Your task to perform on an android device: Open the contacts Image 0: 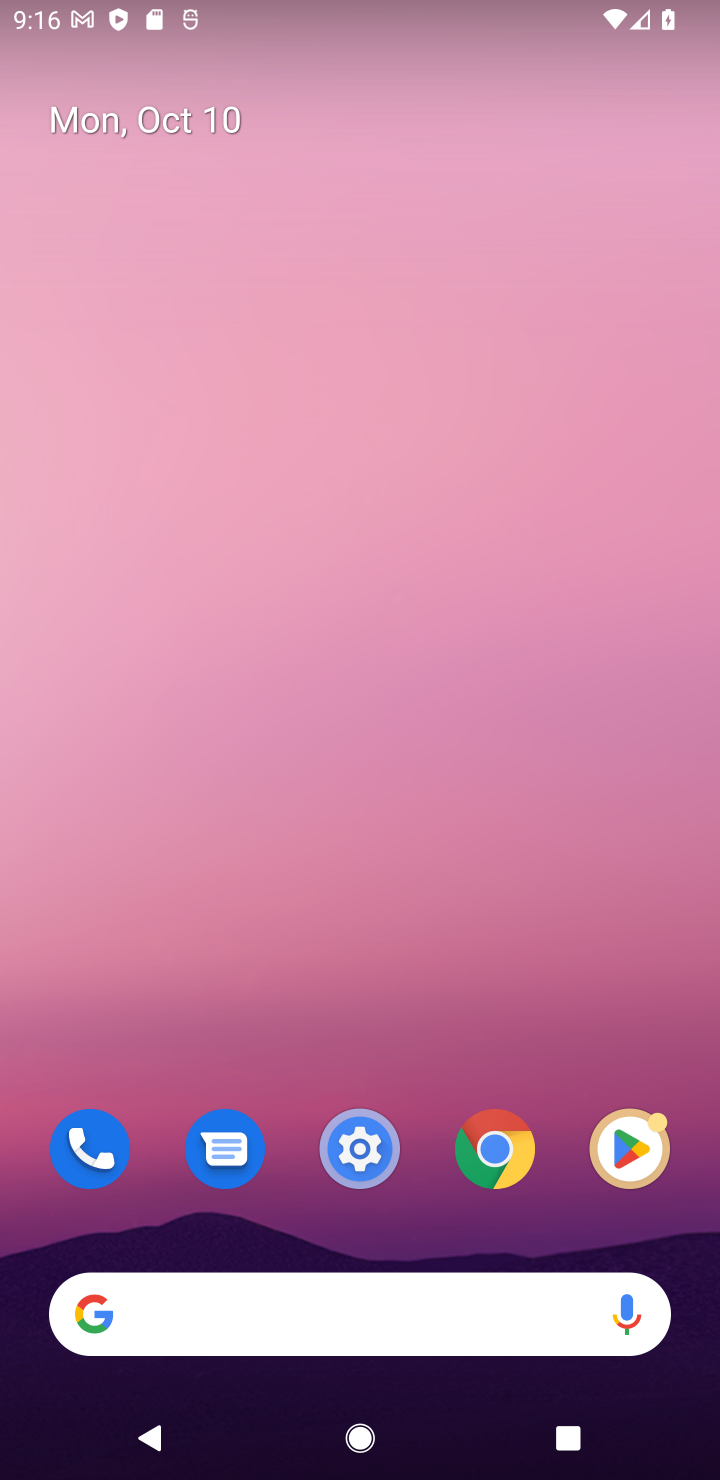
Step 0: drag from (286, 1210) to (307, 281)
Your task to perform on an android device: Open the contacts Image 1: 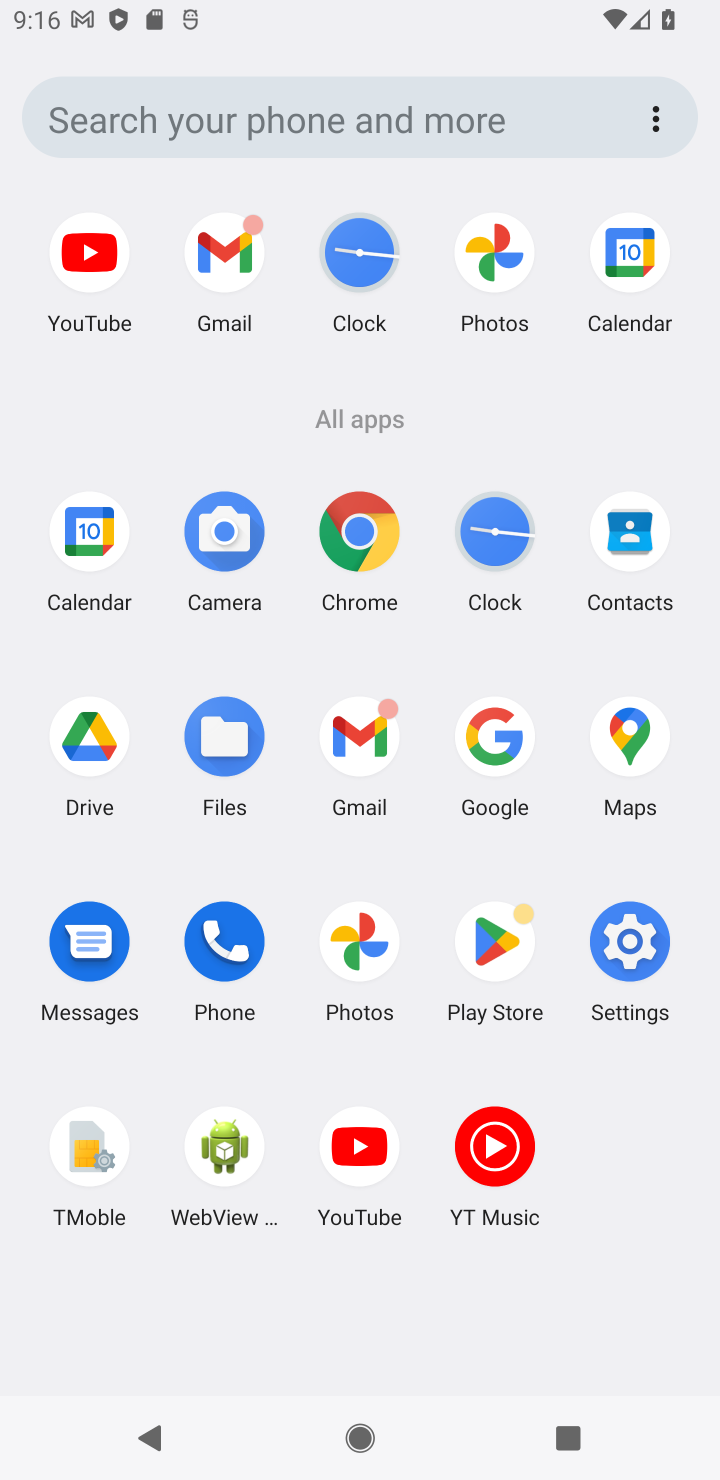
Step 1: click (620, 528)
Your task to perform on an android device: Open the contacts Image 2: 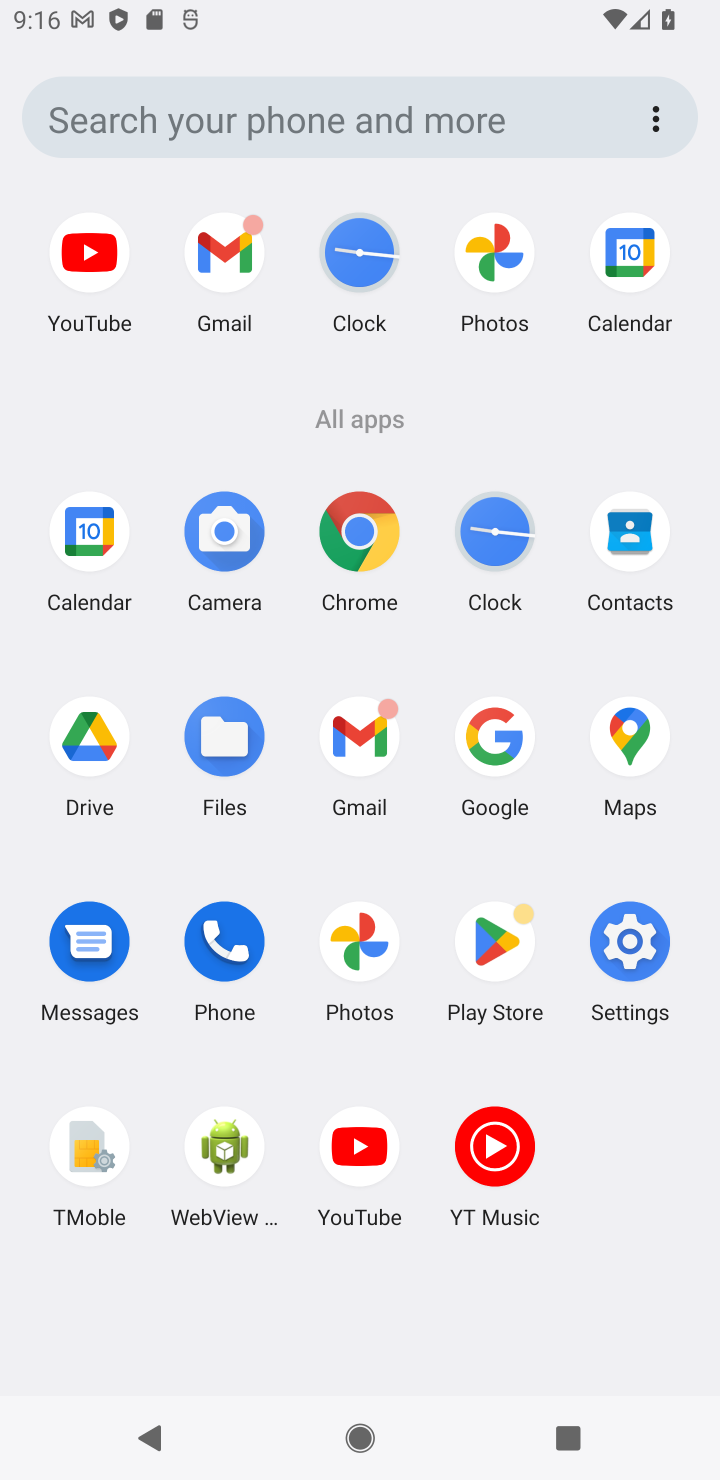
Step 2: task complete